Your task to perform on an android device: add a contact in the contacts app Image 0: 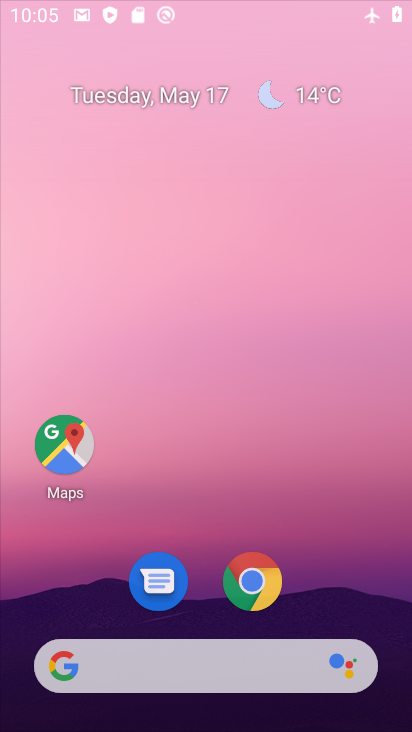
Step 0: click (217, 110)
Your task to perform on an android device: add a contact in the contacts app Image 1: 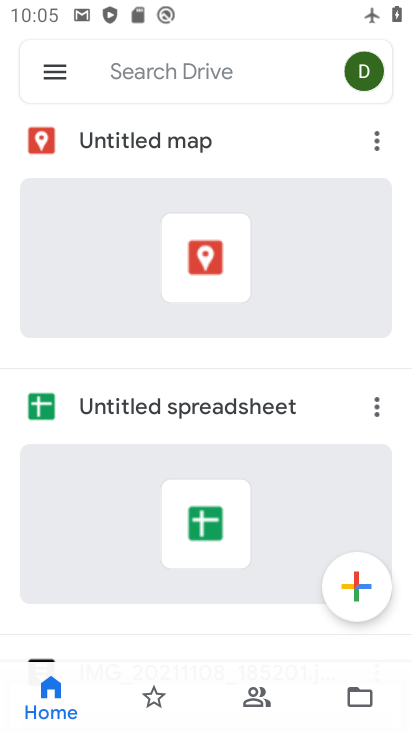
Step 1: press back button
Your task to perform on an android device: add a contact in the contacts app Image 2: 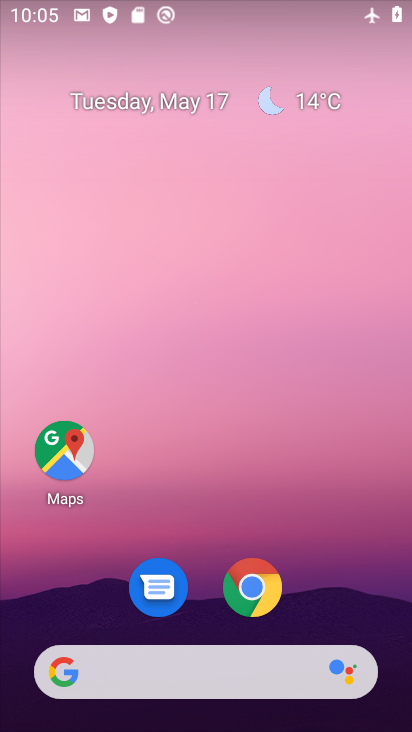
Step 2: drag from (285, 681) to (185, 168)
Your task to perform on an android device: add a contact in the contacts app Image 3: 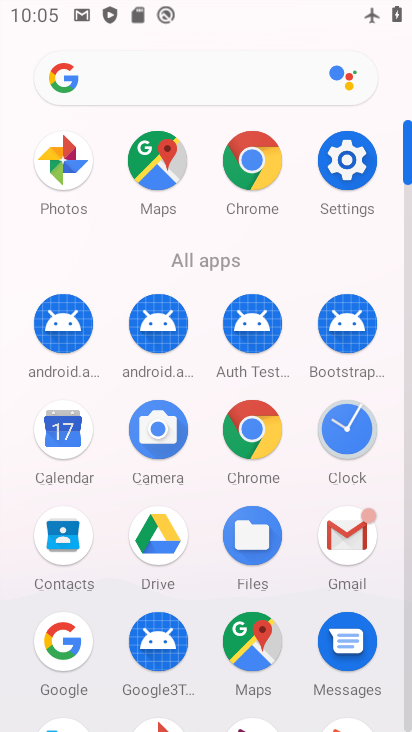
Step 3: click (71, 523)
Your task to perform on an android device: add a contact in the contacts app Image 4: 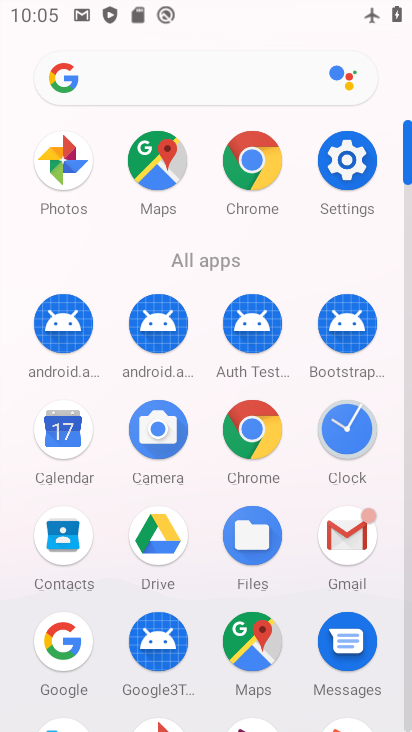
Step 4: click (71, 521)
Your task to perform on an android device: add a contact in the contacts app Image 5: 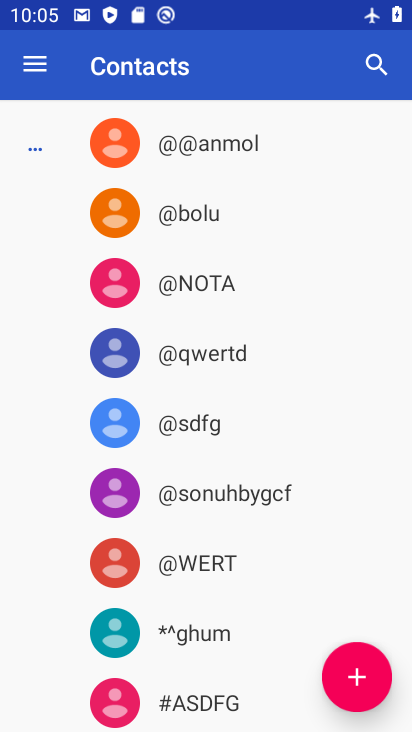
Step 5: click (359, 689)
Your task to perform on an android device: add a contact in the contacts app Image 6: 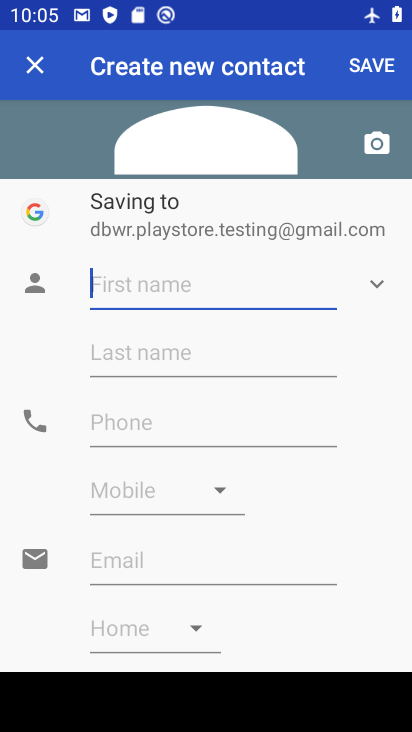
Step 6: type "gfghggjhhkj"
Your task to perform on an android device: add a contact in the contacts app Image 7: 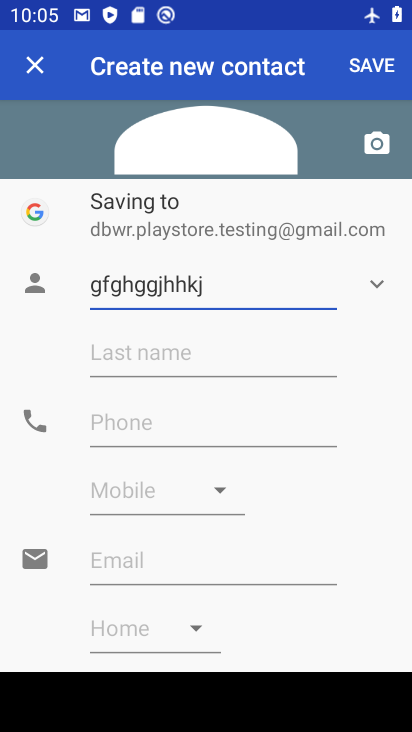
Step 7: click (125, 415)
Your task to perform on an android device: add a contact in the contacts app Image 8: 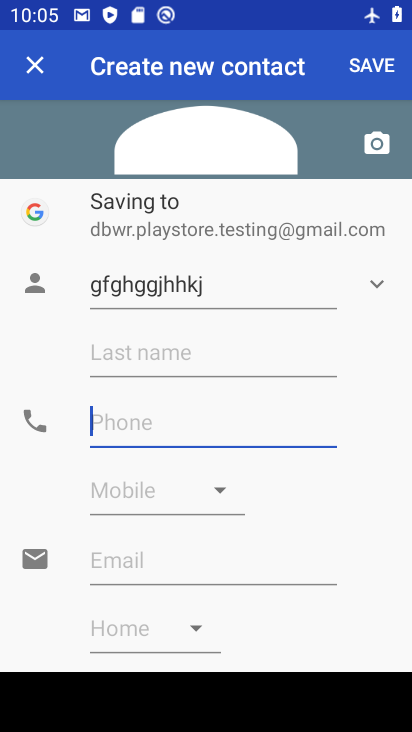
Step 8: type "576786879879879"
Your task to perform on an android device: add a contact in the contacts app Image 9: 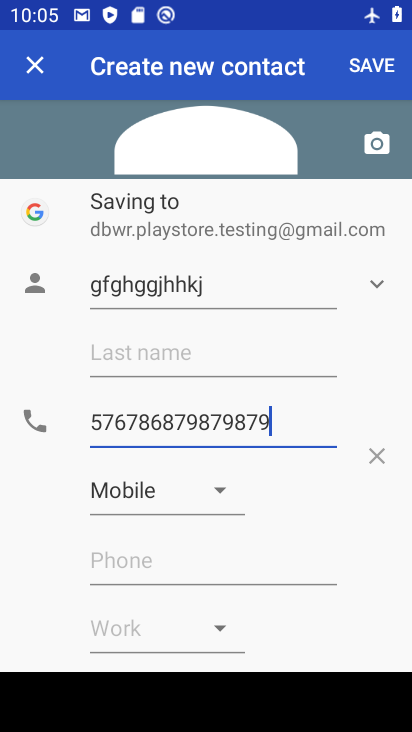
Step 9: click (363, 70)
Your task to perform on an android device: add a contact in the contacts app Image 10: 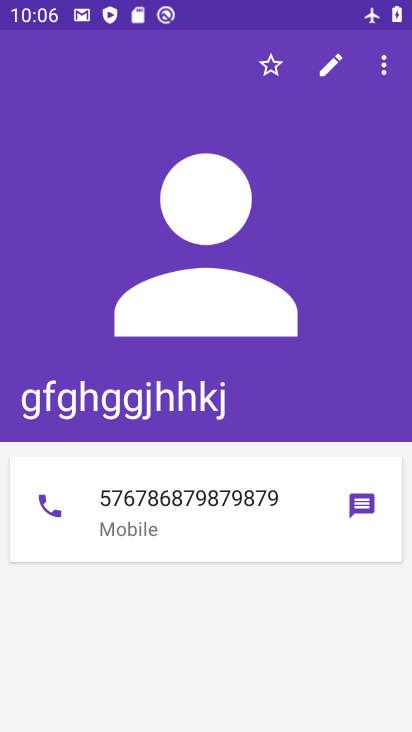
Step 10: task complete